Your task to perform on an android device: turn off priority inbox in the gmail app Image 0: 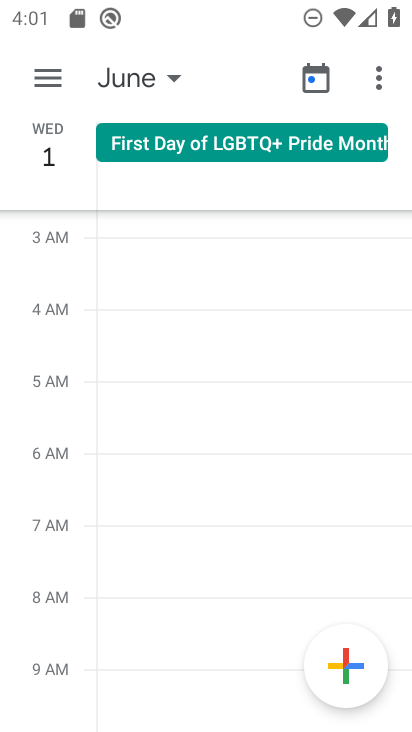
Step 0: press home button
Your task to perform on an android device: turn off priority inbox in the gmail app Image 1: 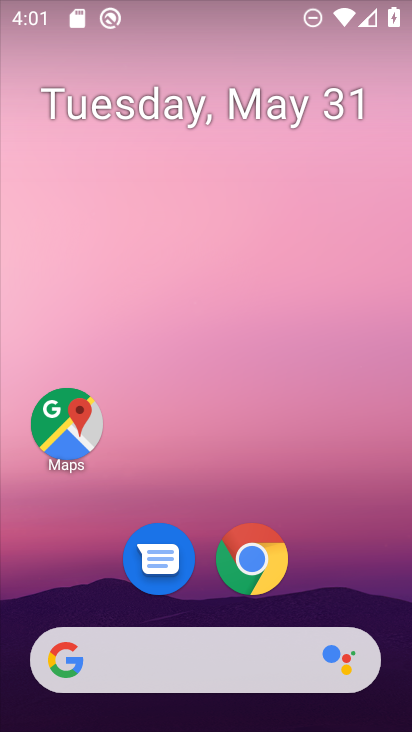
Step 1: drag from (248, 724) to (247, 320)
Your task to perform on an android device: turn off priority inbox in the gmail app Image 2: 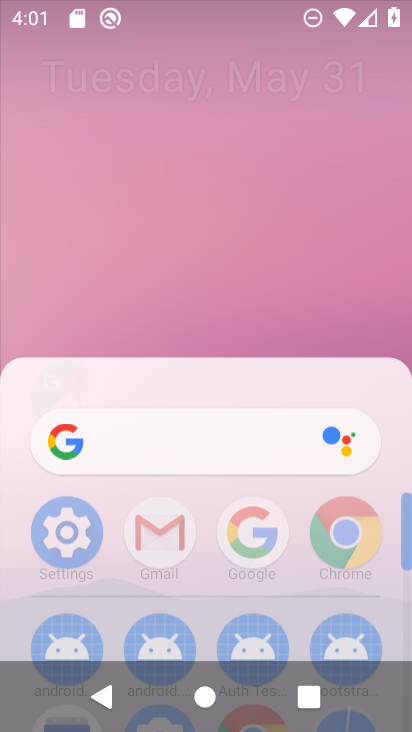
Step 2: click (247, 72)
Your task to perform on an android device: turn off priority inbox in the gmail app Image 3: 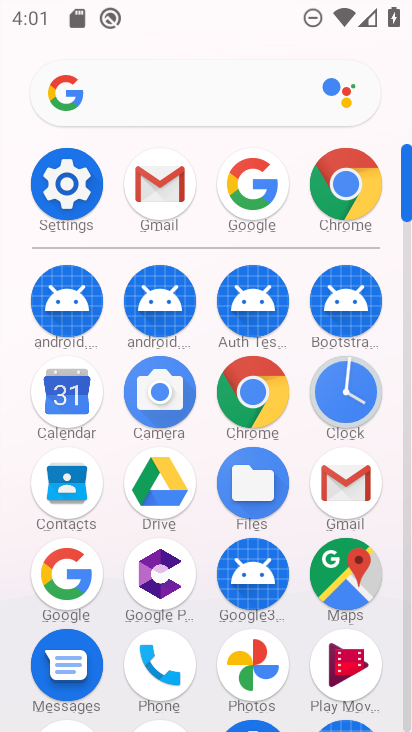
Step 3: click (348, 477)
Your task to perform on an android device: turn off priority inbox in the gmail app Image 4: 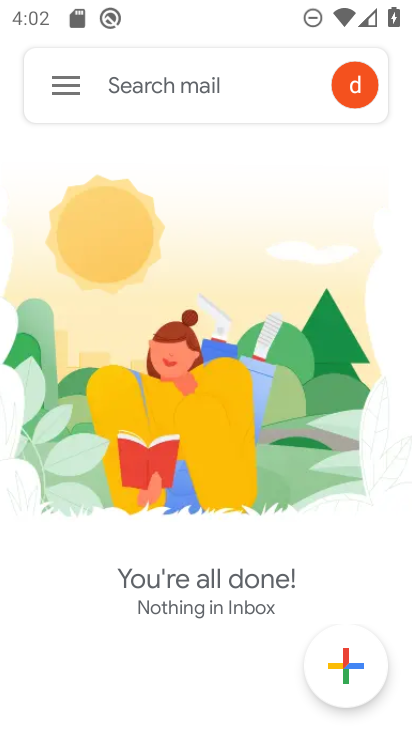
Step 4: click (59, 86)
Your task to perform on an android device: turn off priority inbox in the gmail app Image 5: 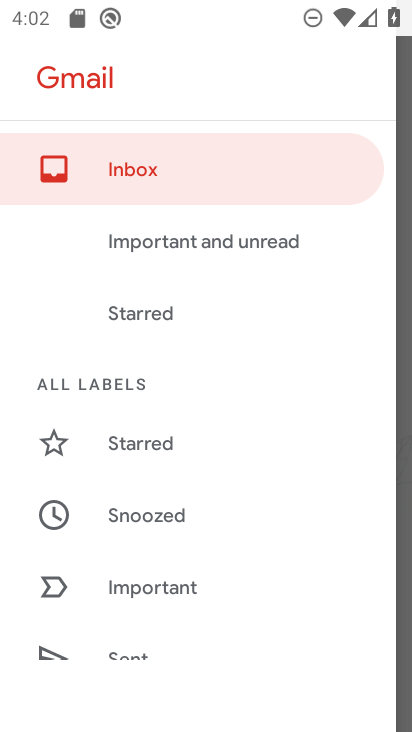
Step 5: drag from (182, 643) to (178, 281)
Your task to perform on an android device: turn off priority inbox in the gmail app Image 6: 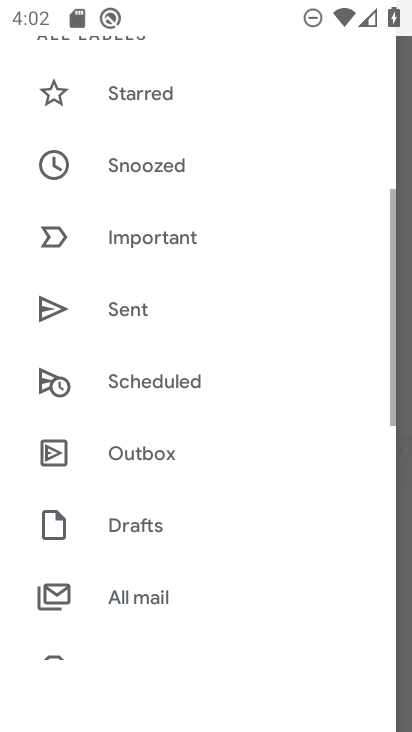
Step 6: drag from (190, 636) to (193, 215)
Your task to perform on an android device: turn off priority inbox in the gmail app Image 7: 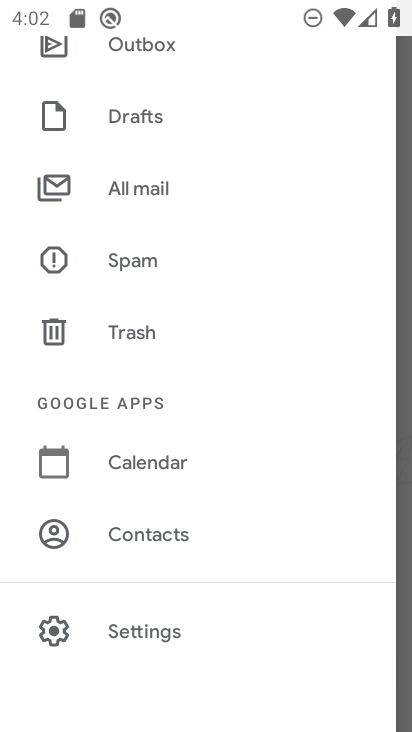
Step 7: click (161, 624)
Your task to perform on an android device: turn off priority inbox in the gmail app Image 8: 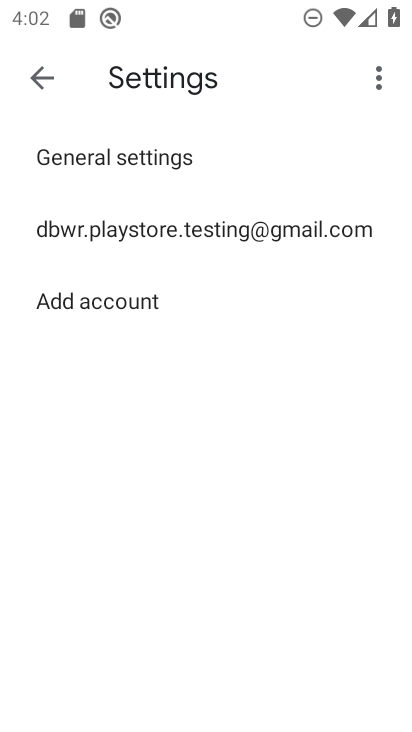
Step 8: click (198, 223)
Your task to perform on an android device: turn off priority inbox in the gmail app Image 9: 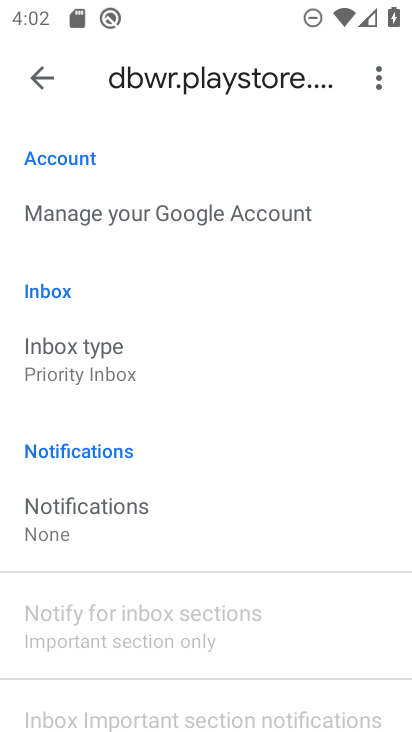
Step 9: click (79, 360)
Your task to perform on an android device: turn off priority inbox in the gmail app Image 10: 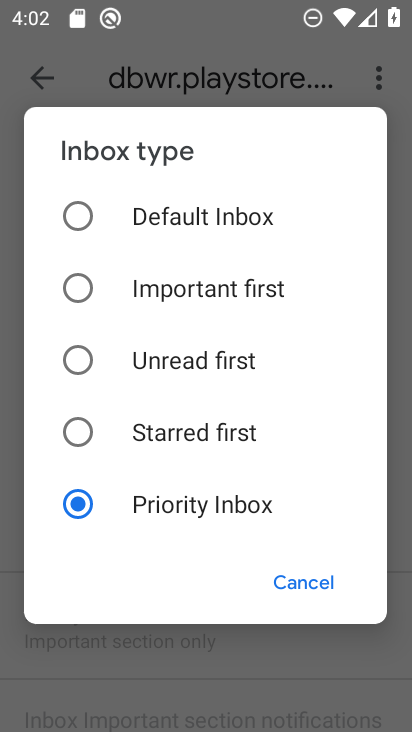
Step 10: click (80, 214)
Your task to perform on an android device: turn off priority inbox in the gmail app Image 11: 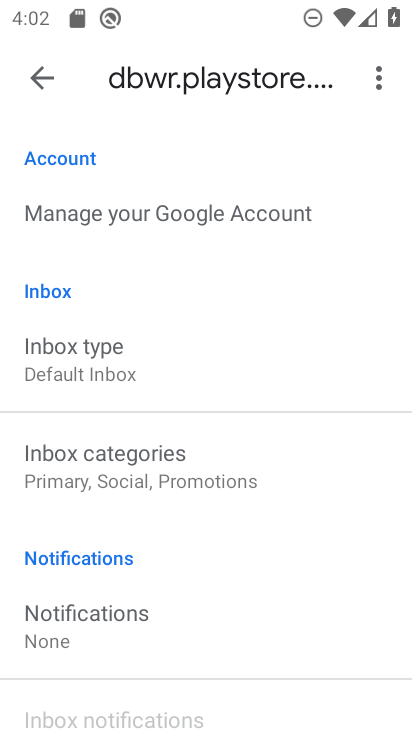
Step 11: task complete